Your task to perform on an android device: turn on translation in the chrome app Image 0: 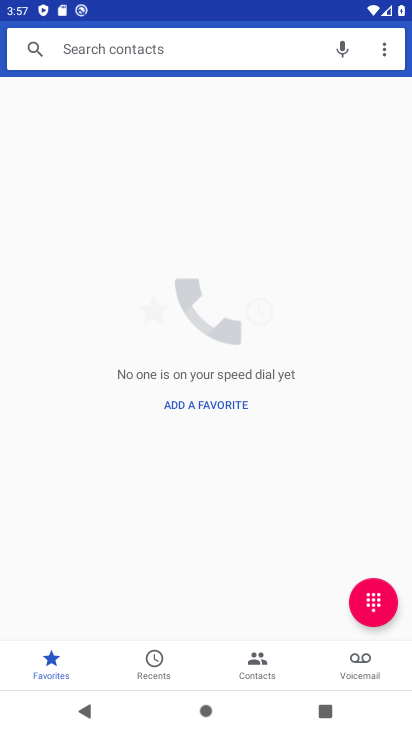
Step 0: press home button
Your task to perform on an android device: turn on translation in the chrome app Image 1: 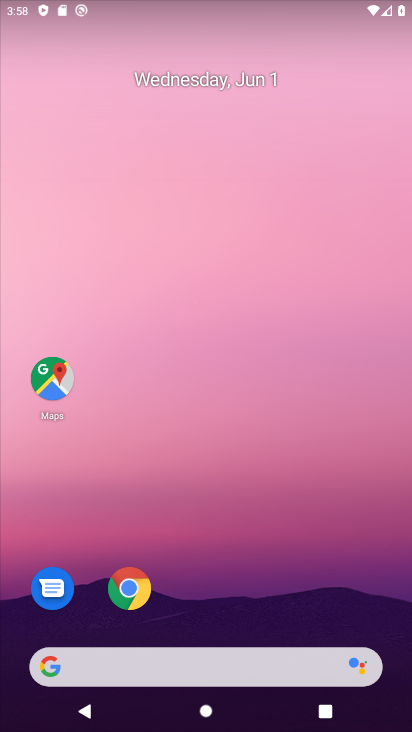
Step 1: click (136, 586)
Your task to perform on an android device: turn on translation in the chrome app Image 2: 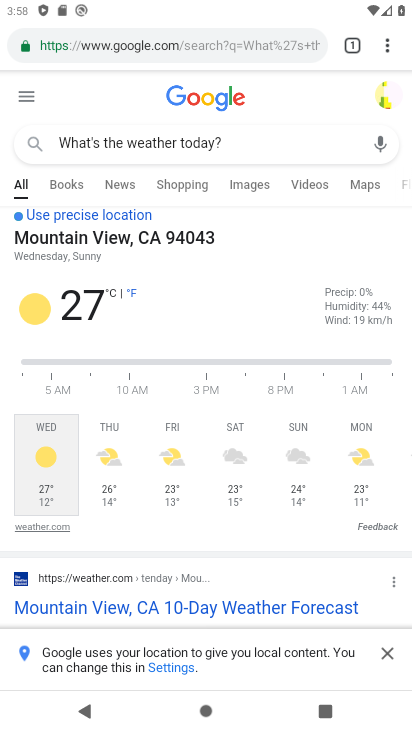
Step 2: click (394, 56)
Your task to perform on an android device: turn on translation in the chrome app Image 3: 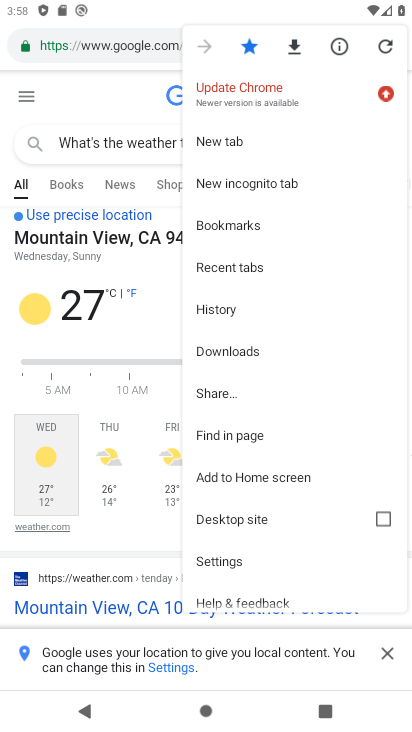
Step 3: click (251, 557)
Your task to perform on an android device: turn on translation in the chrome app Image 4: 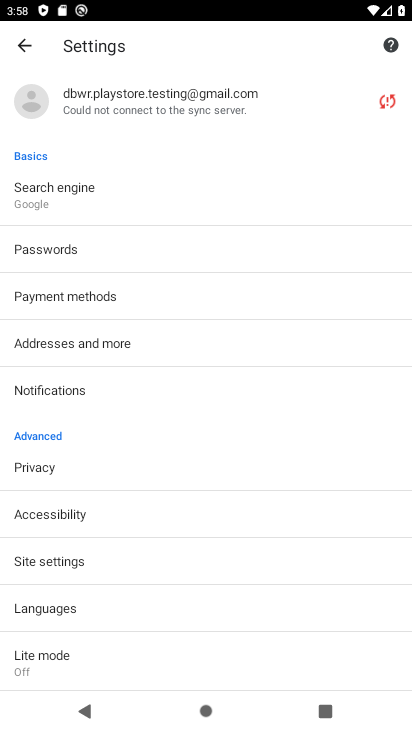
Step 4: drag from (282, 575) to (270, 374)
Your task to perform on an android device: turn on translation in the chrome app Image 5: 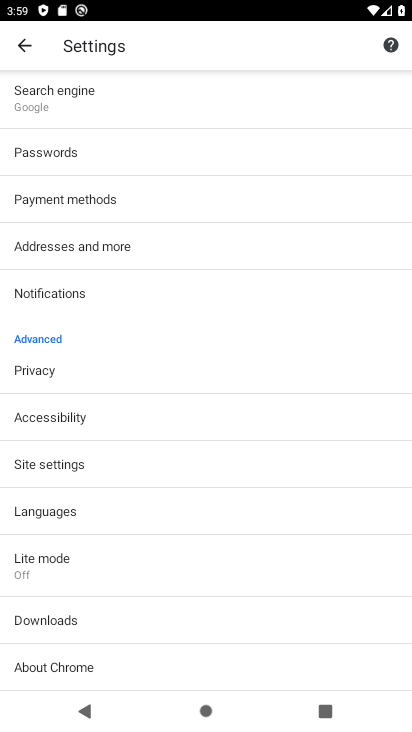
Step 5: click (219, 522)
Your task to perform on an android device: turn on translation in the chrome app Image 6: 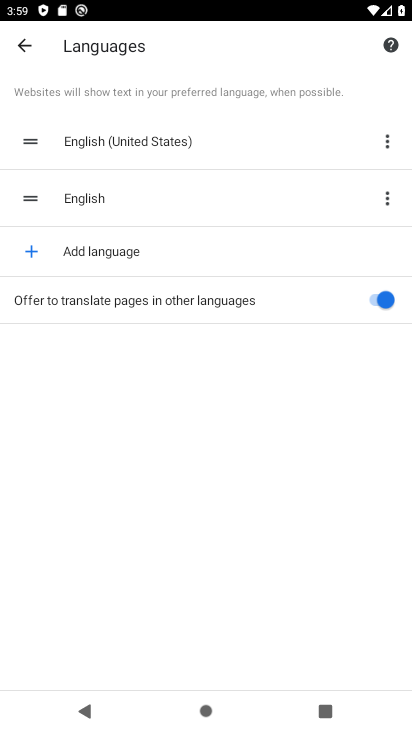
Step 6: task complete